Your task to perform on an android device: Go to CNN.com Image 0: 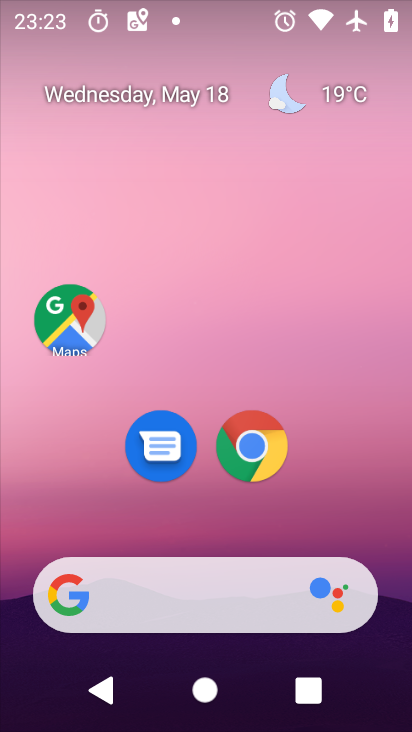
Step 0: press home button
Your task to perform on an android device: Go to CNN.com Image 1: 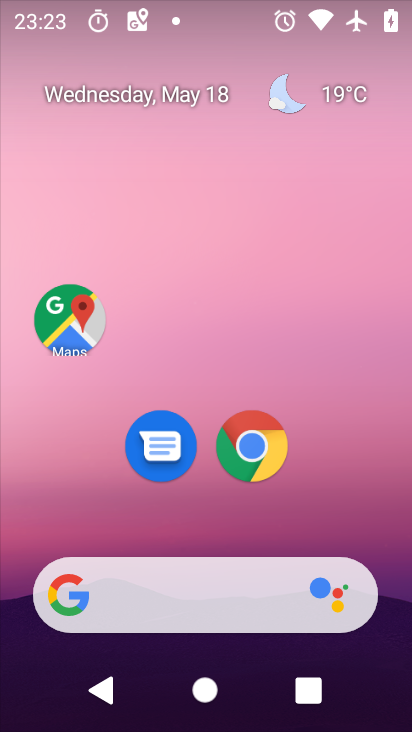
Step 1: click (252, 449)
Your task to perform on an android device: Go to CNN.com Image 2: 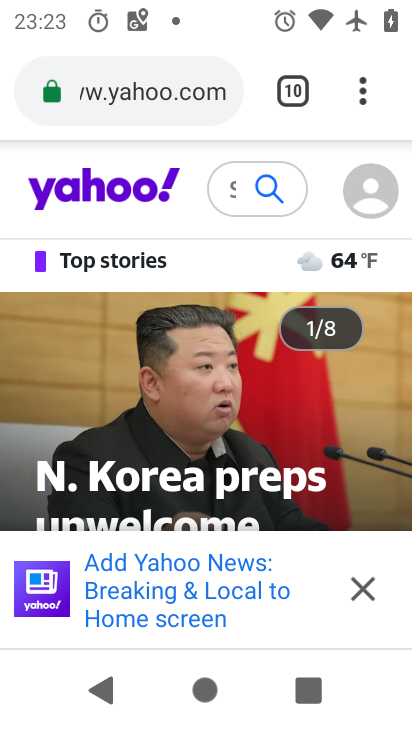
Step 2: drag from (360, 106) to (199, 178)
Your task to perform on an android device: Go to CNN.com Image 3: 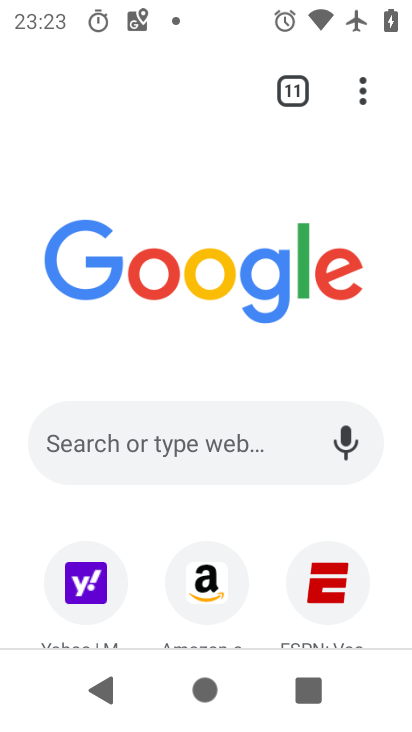
Step 3: drag from (209, 515) to (349, 100)
Your task to perform on an android device: Go to CNN.com Image 4: 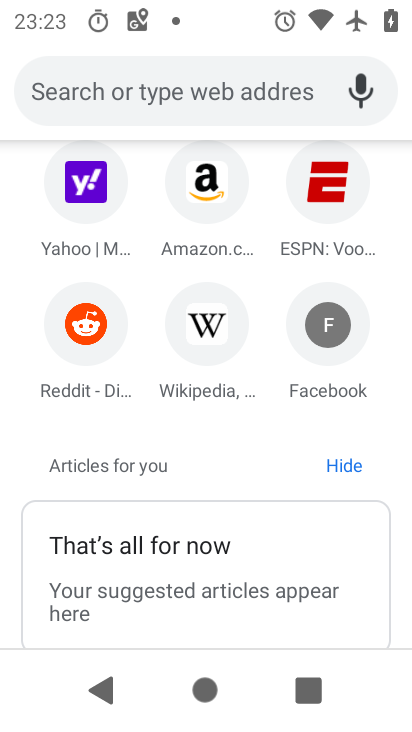
Step 4: drag from (273, 176) to (214, 526)
Your task to perform on an android device: Go to CNN.com Image 5: 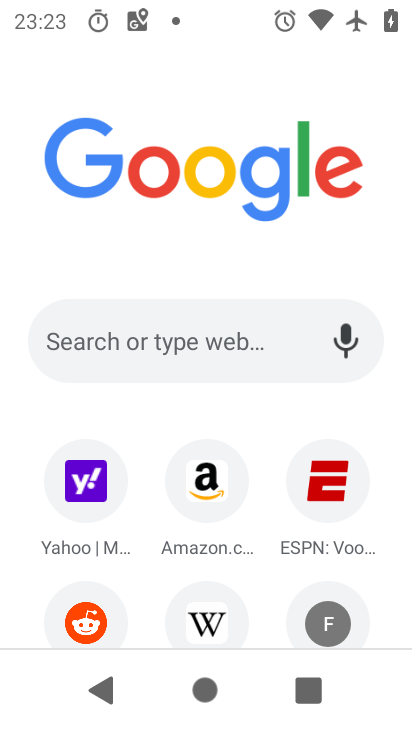
Step 5: click (119, 348)
Your task to perform on an android device: Go to CNN.com Image 6: 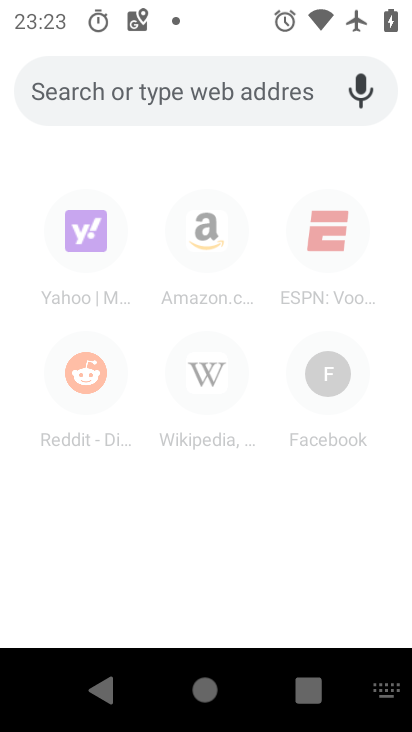
Step 6: type "cnn.com"
Your task to perform on an android device: Go to CNN.com Image 7: 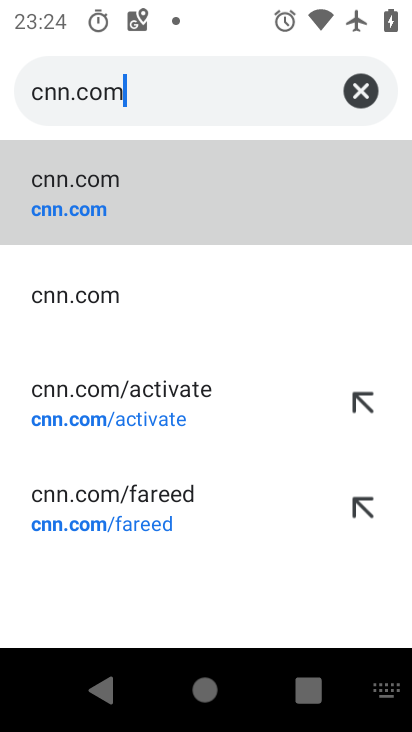
Step 7: click (93, 202)
Your task to perform on an android device: Go to CNN.com Image 8: 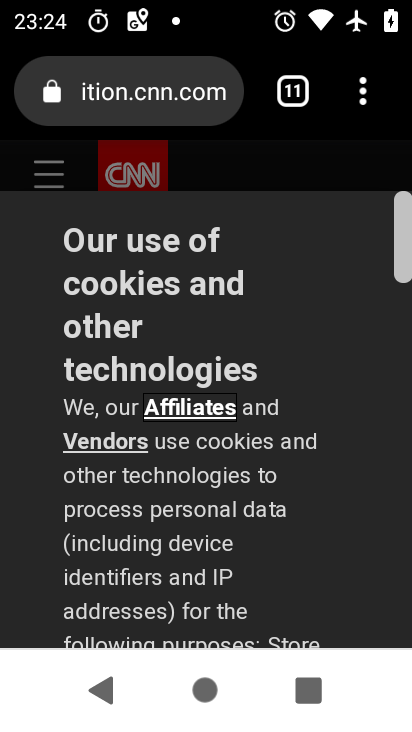
Step 8: task complete